Your task to perform on an android device: View the shopping cart on target.com. Image 0: 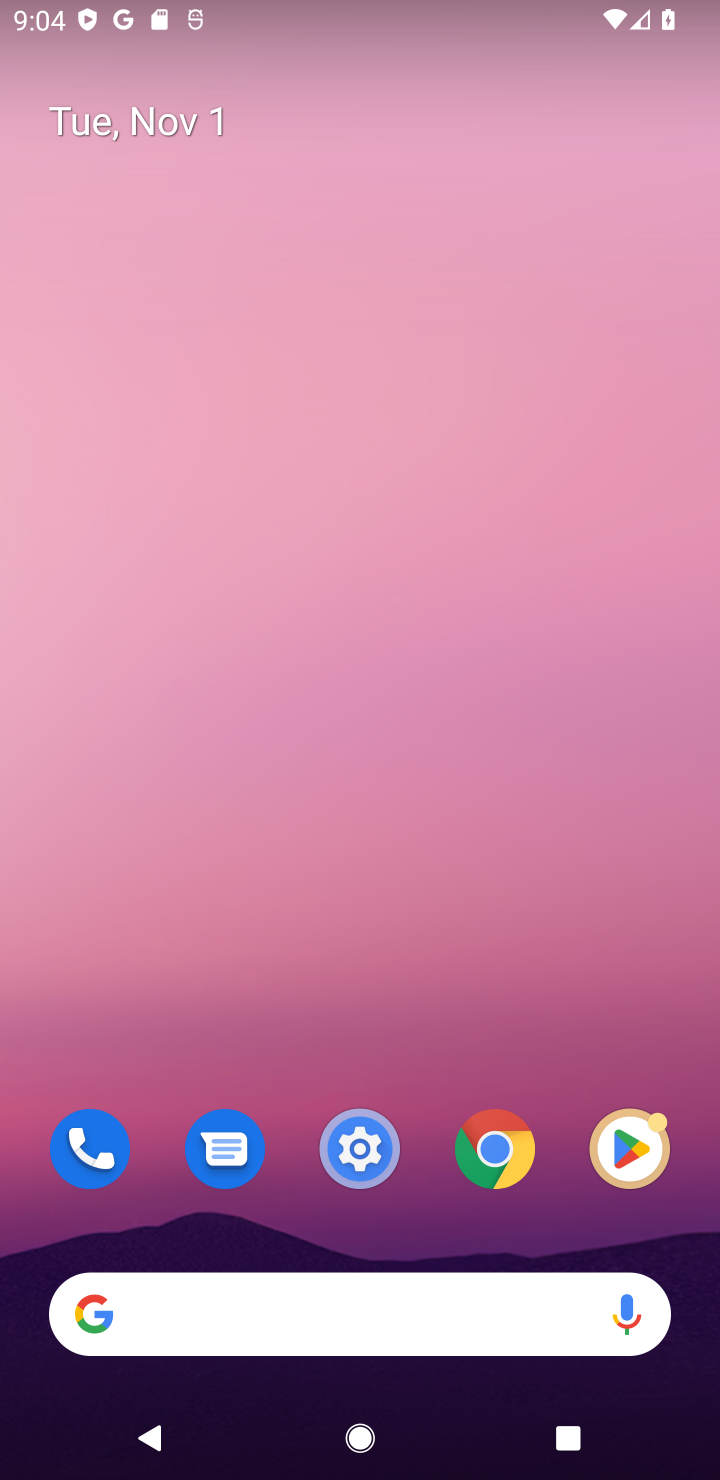
Step 0: press home button
Your task to perform on an android device: View the shopping cart on target.com. Image 1: 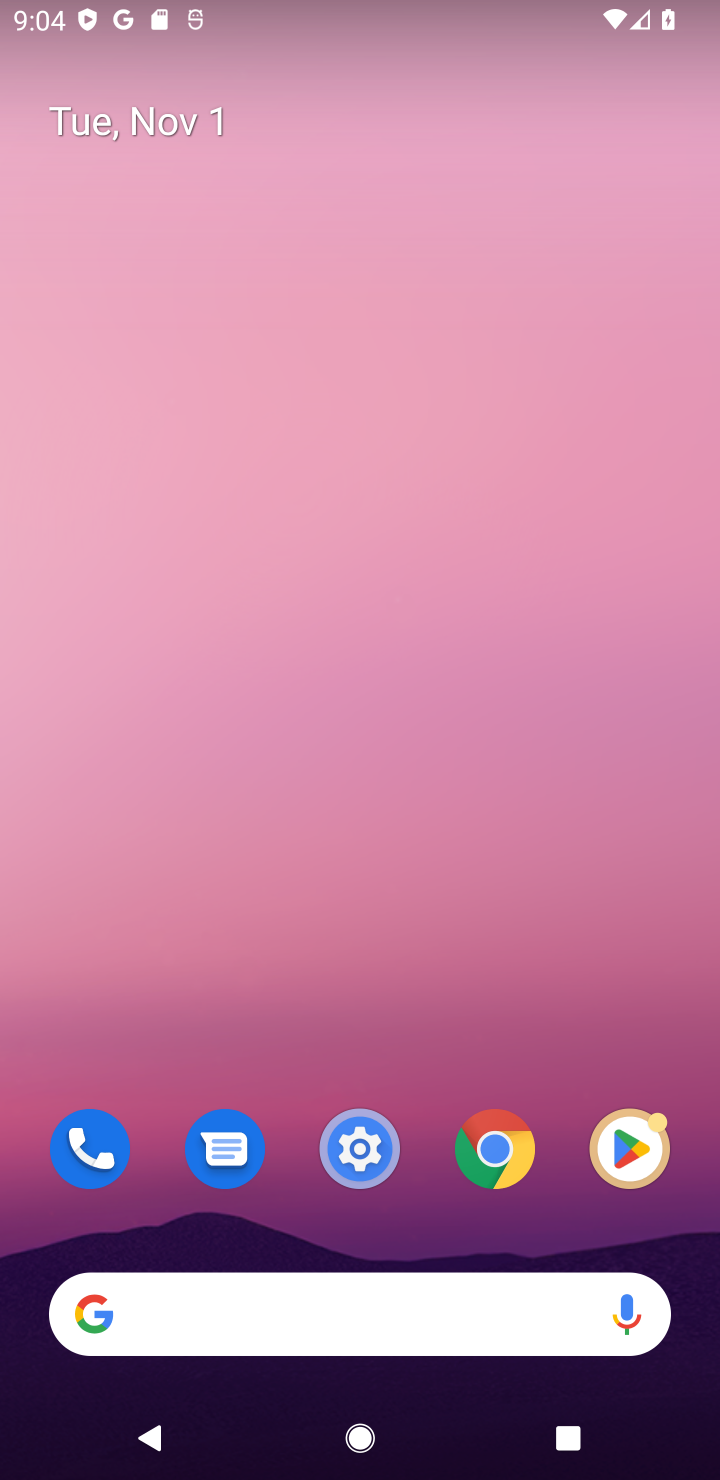
Step 1: click (142, 1303)
Your task to perform on an android device: View the shopping cart on target.com. Image 2: 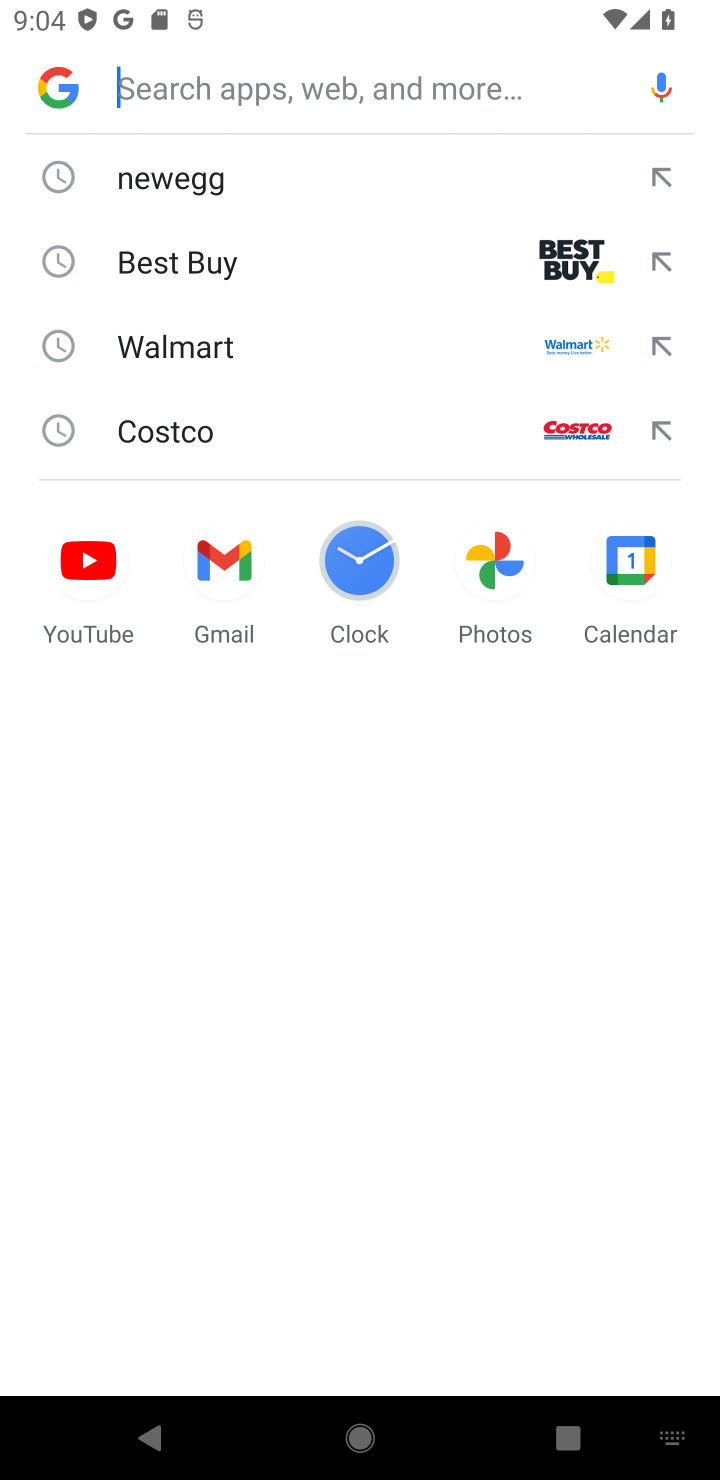
Step 2: type "target.com"
Your task to perform on an android device: View the shopping cart on target.com. Image 3: 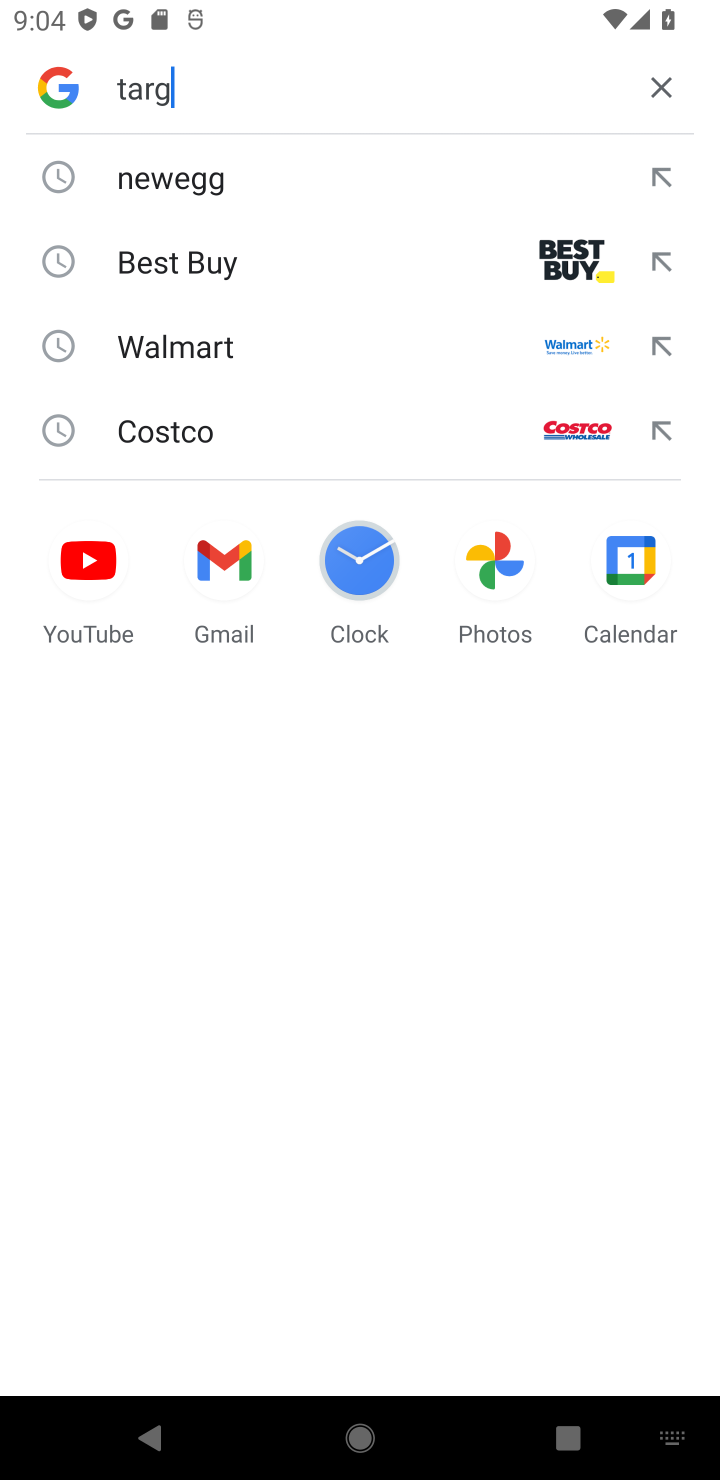
Step 3: press enter
Your task to perform on an android device: View the shopping cart on target.com. Image 4: 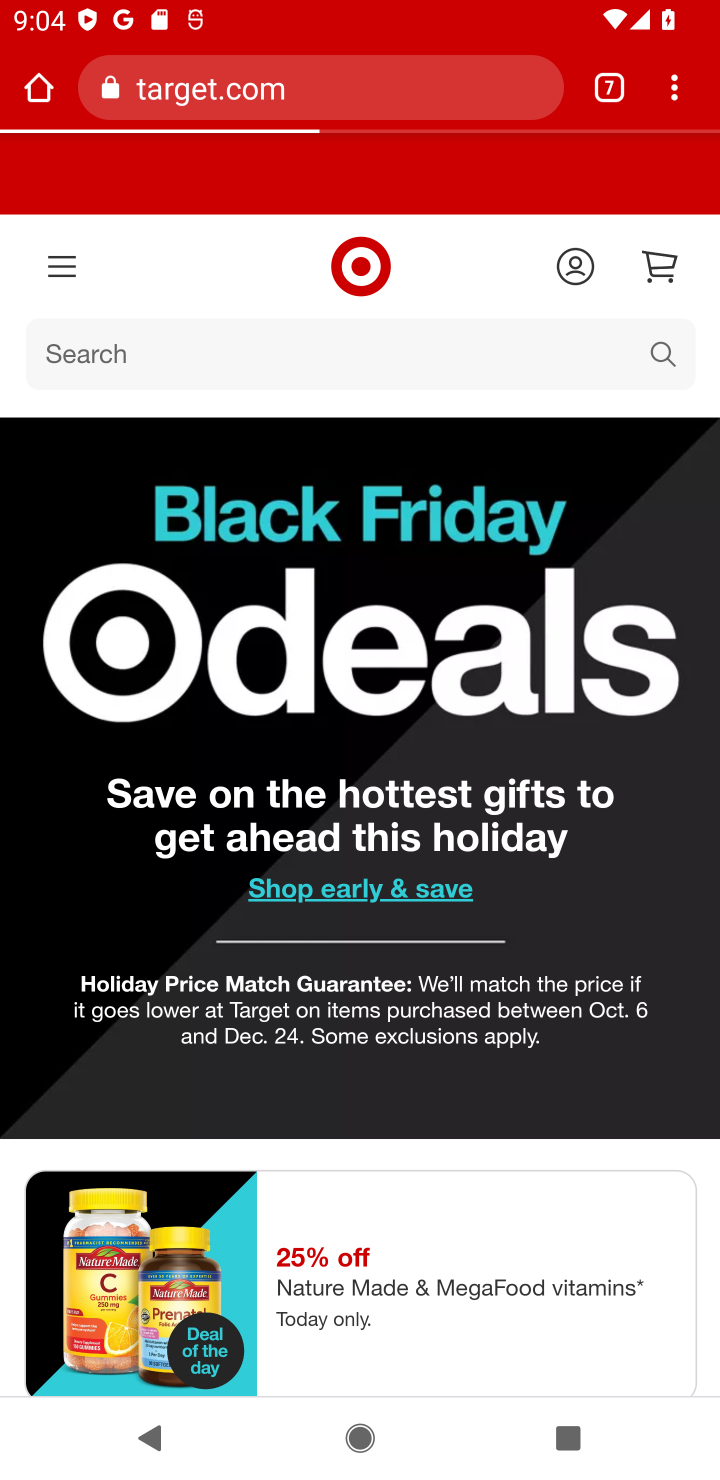
Step 4: press enter
Your task to perform on an android device: View the shopping cart on target.com. Image 5: 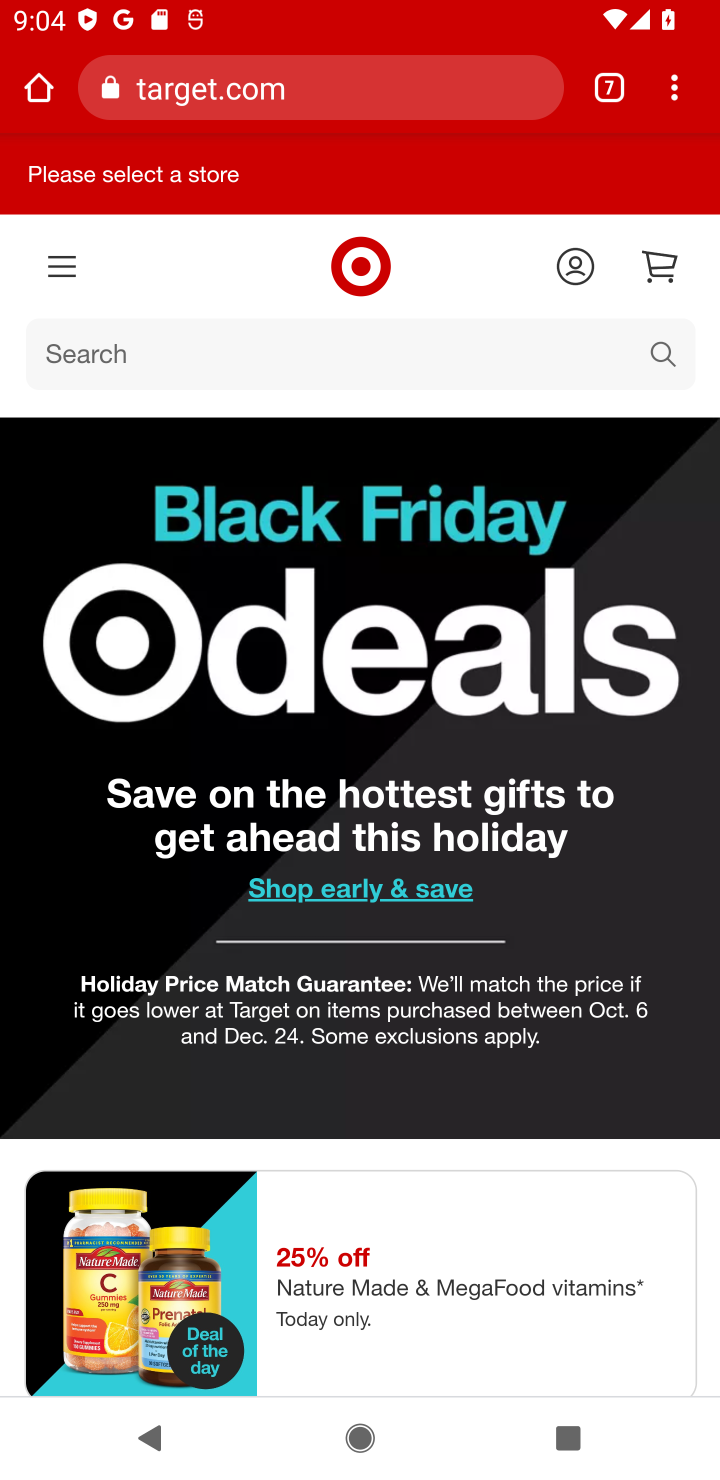
Step 5: click (670, 255)
Your task to perform on an android device: View the shopping cart on target.com. Image 6: 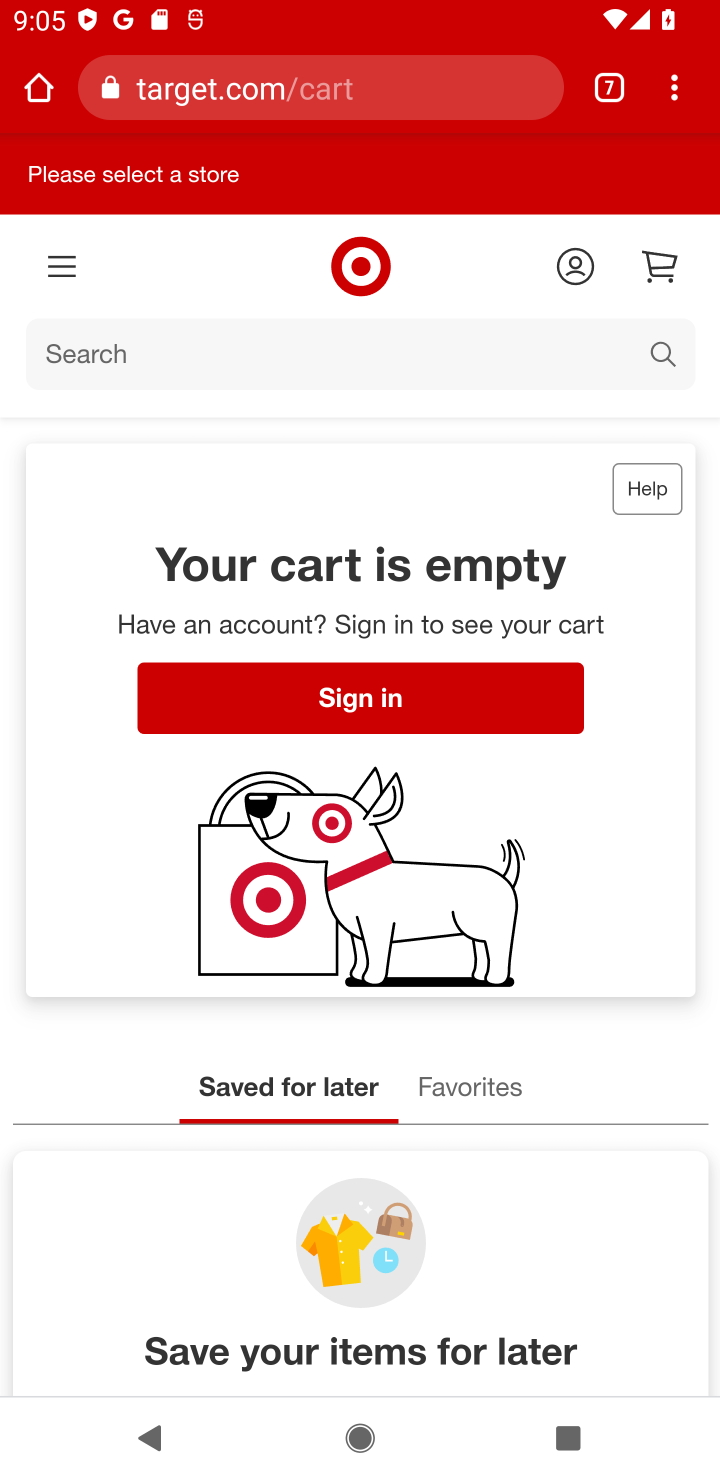
Step 6: task complete